Your task to perform on an android device: change the clock display to analog Image 0: 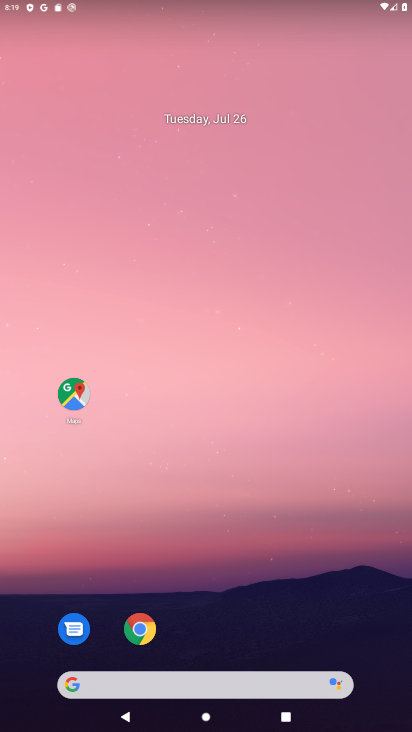
Step 0: press home button
Your task to perform on an android device: change the clock display to analog Image 1: 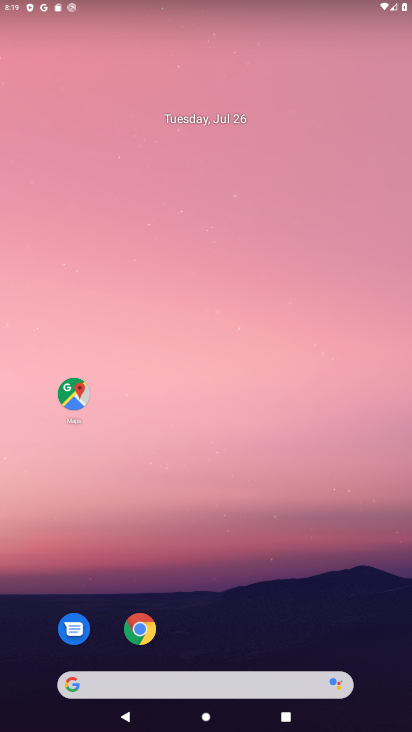
Step 1: drag from (243, 583) to (234, 159)
Your task to perform on an android device: change the clock display to analog Image 2: 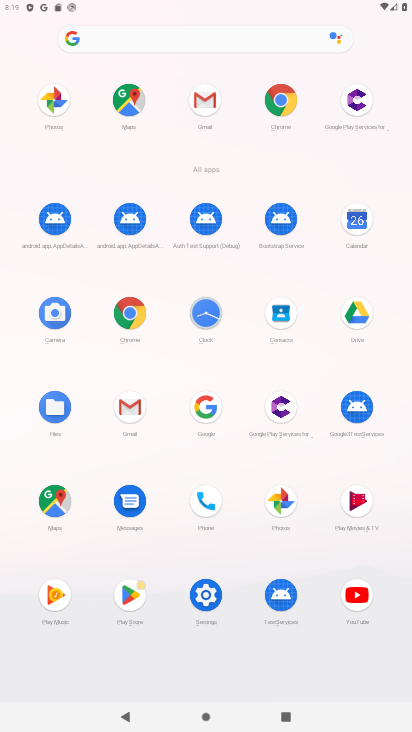
Step 2: click (200, 316)
Your task to perform on an android device: change the clock display to analog Image 3: 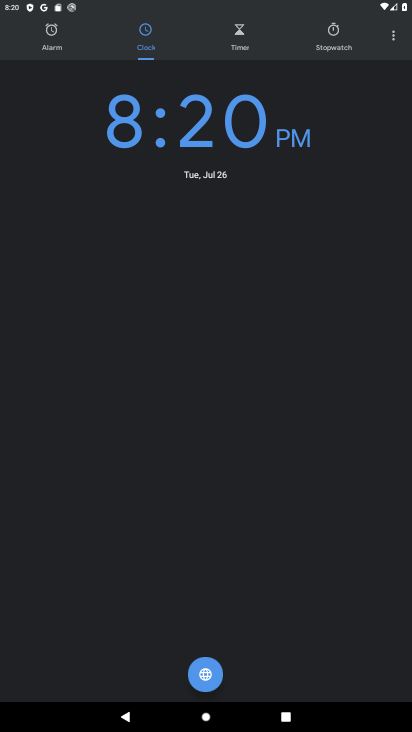
Step 3: click (394, 45)
Your task to perform on an android device: change the clock display to analog Image 4: 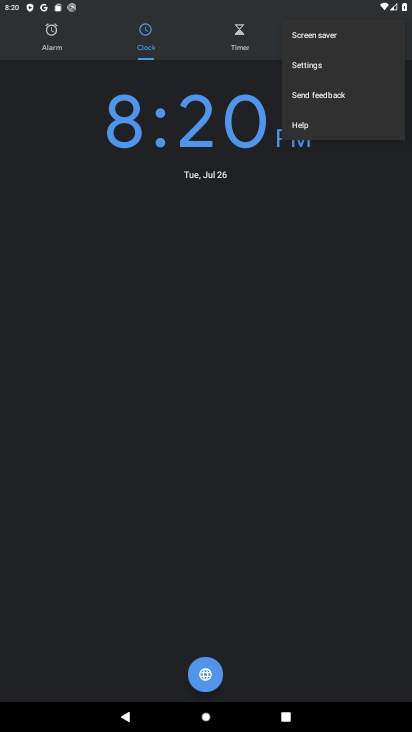
Step 4: click (297, 71)
Your task to perform on an android device: change the clock display to analog Image 5: 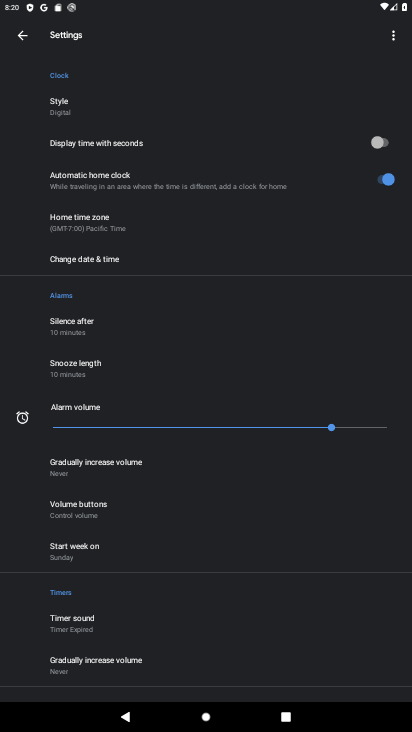
Step 5: click (58, 116)
Your task to perform on an android device: change the clock display to analog Image 6: 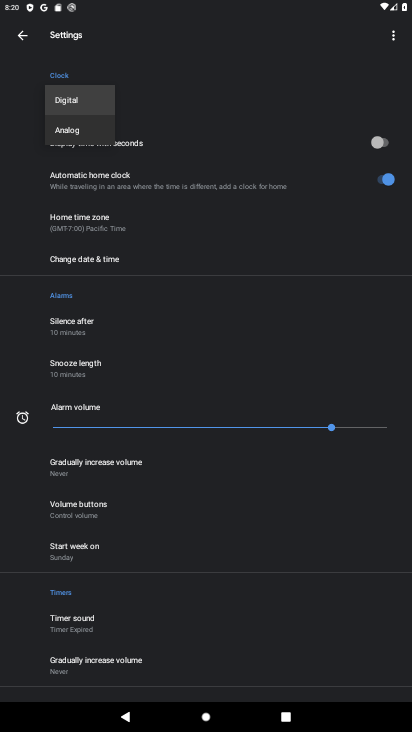
Step 6: click (69, 127)
Your task to perform on an android device: change the clock display to analog Image 7: 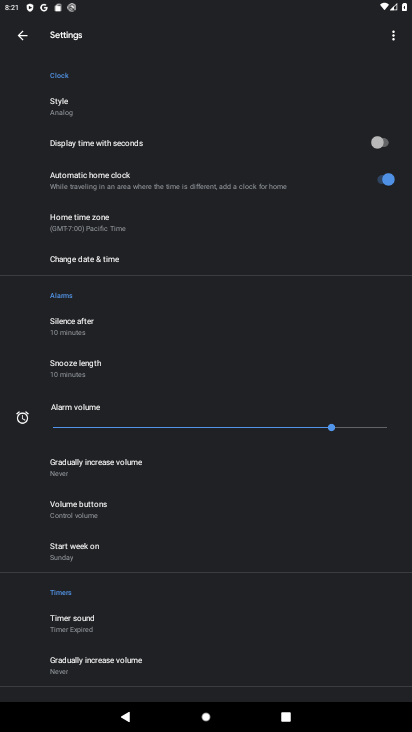
Step 7: task complete